Your task to perform on an android device: Go to Reddit.com Image 0: 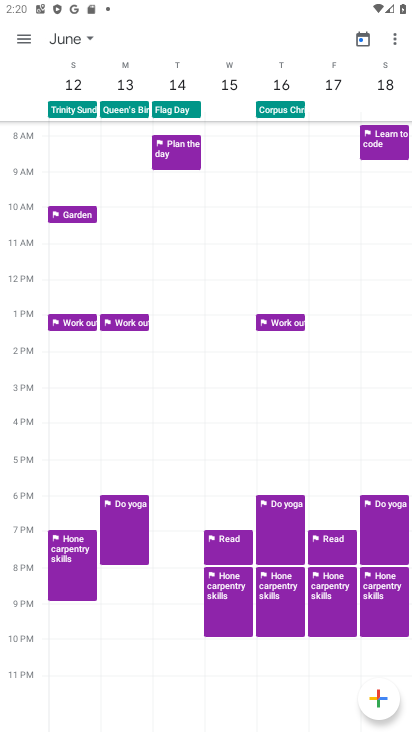
Step 0: press back button
Your task to perform on an android device: Go to Reddit.com Image 1: 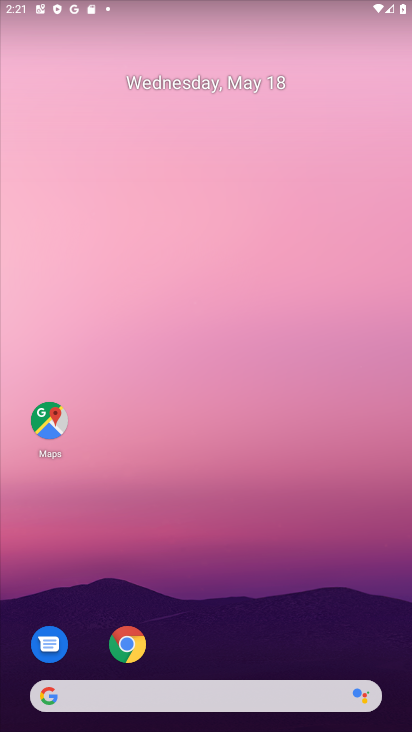
Step 1: click (127, 643)
Your task to perform on an android device: Go to Reddit.com Image 2: 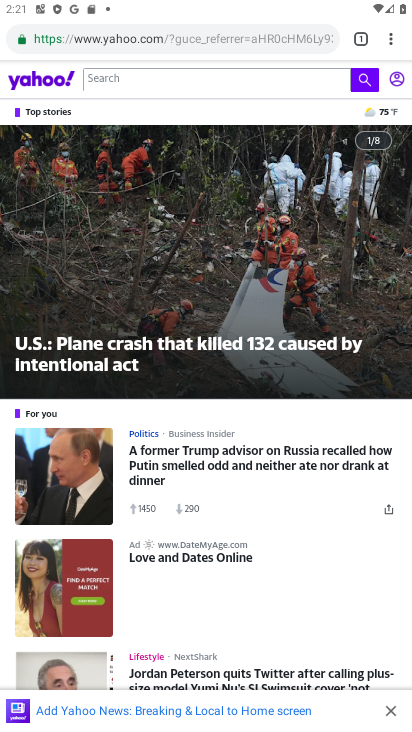
Step 2: click (241, 34)
Your task to perform on an android device: Go to Reddit.com Image 3: 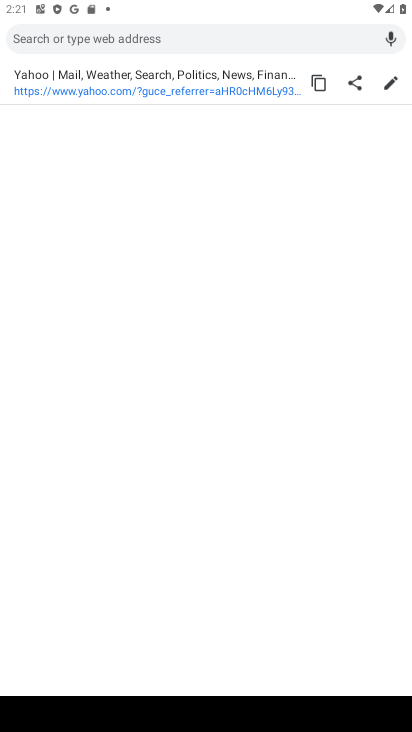
Step 3: type "Reddit.com"
Your task to perform on an android device: Go to Reddit.com Image 4: 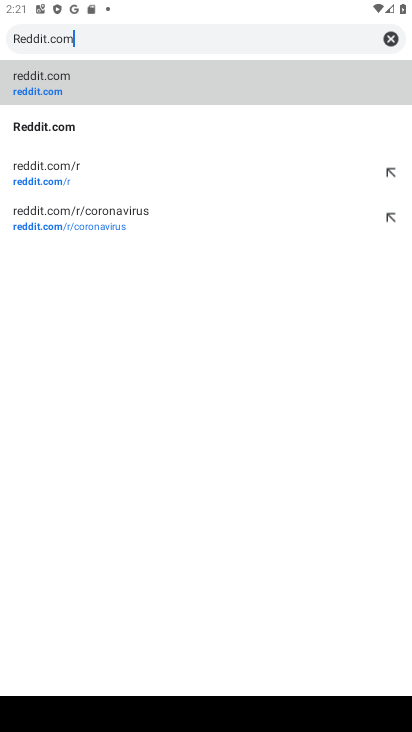
Step 4: click (67, 134)
Your task to perform on an android device: Go to Reddit.com Image 5: 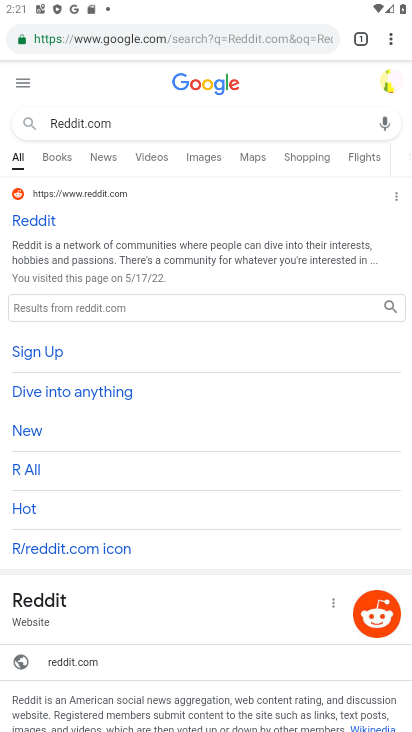
Step 5: click (29, 222)
Your task to perform on an android device: Go to Reddit.com Image 6: 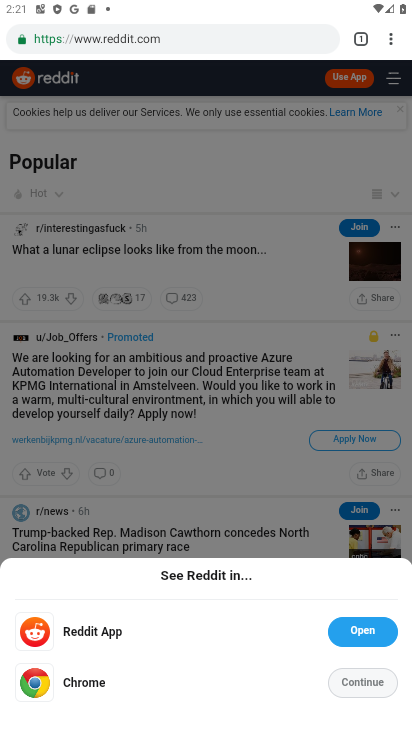
Step 6: click (373, 677)
Your task to perform on an android device: Go to Reddit.com Image 7: 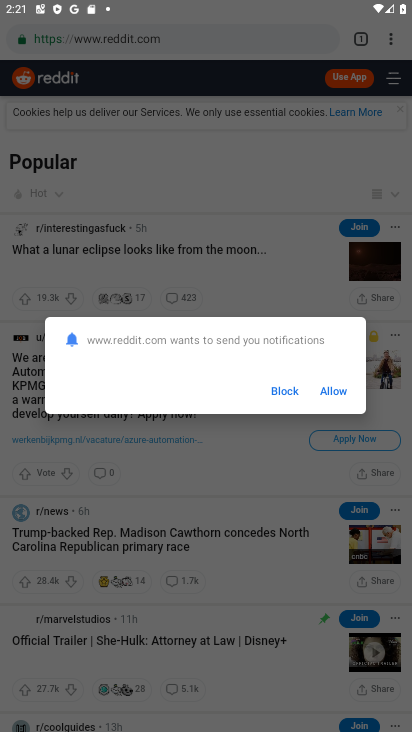
Step 7: click (328, 392)
Your task to perform on an android device: Go to Reddit.com Image 8: 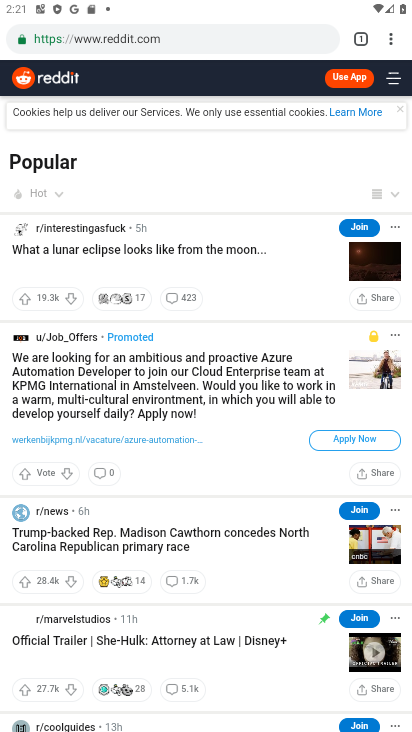
Step 8: task complete